Your task to perform on an android device: What is the news today? Image 0: 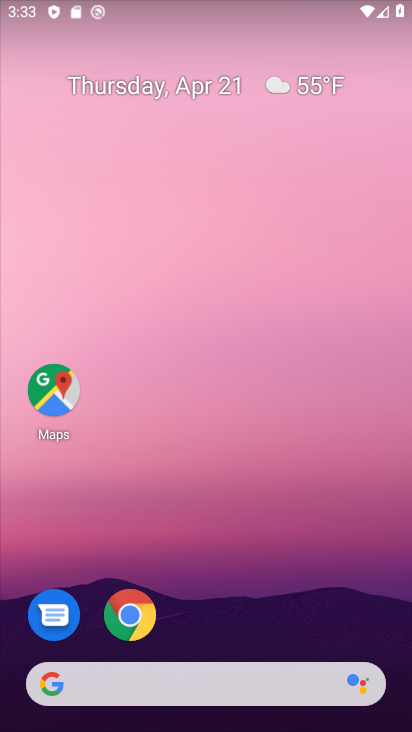
Step 0: click (155, 677)
Your task to perform on an android device: What is the news today? Image 1: 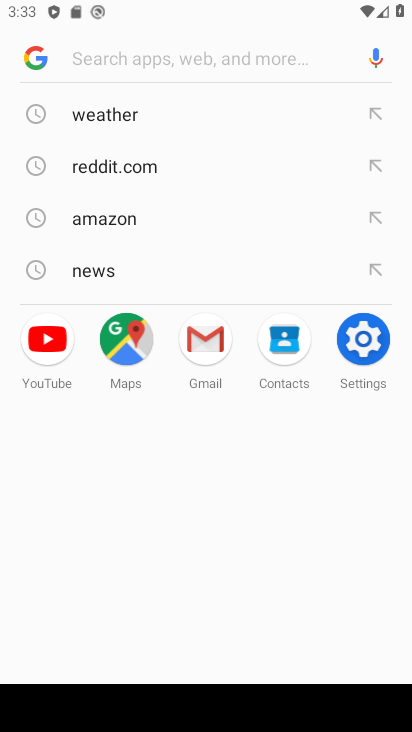
Step 1: click (105, 270)
Your task to perform on an android device: What is the news today? Image 2: 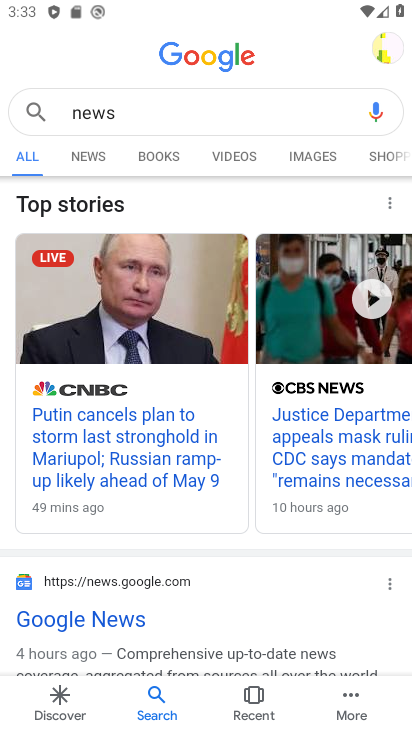
Step 2: task complete